Your task to perform on an android device: turn off notifications settings in the gmail app Image 0: 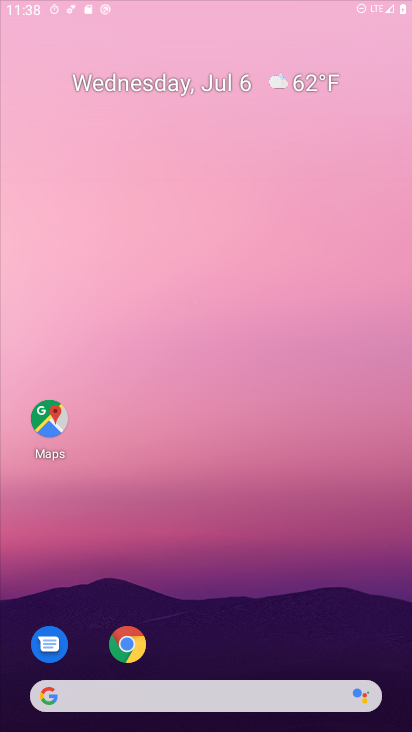
Step 0: press home button
Your task to perform on an android device: turn off notifications settings in the gmail app Image 1: 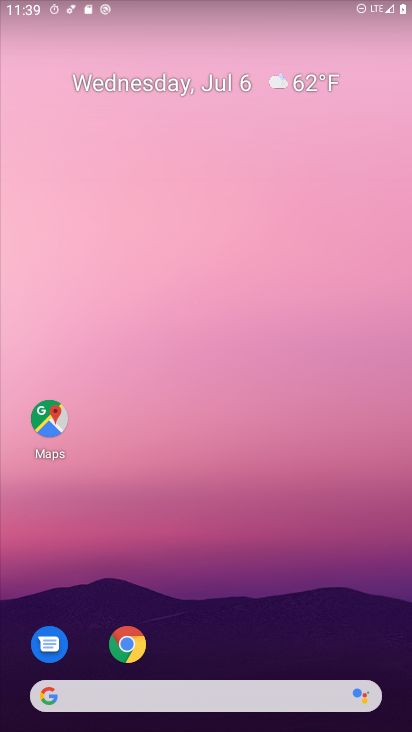
Step 1: drag from (236, 657) to (225, 40)
Your task to perform on an android device: turn off notifications settings in the gmail app Image 2: 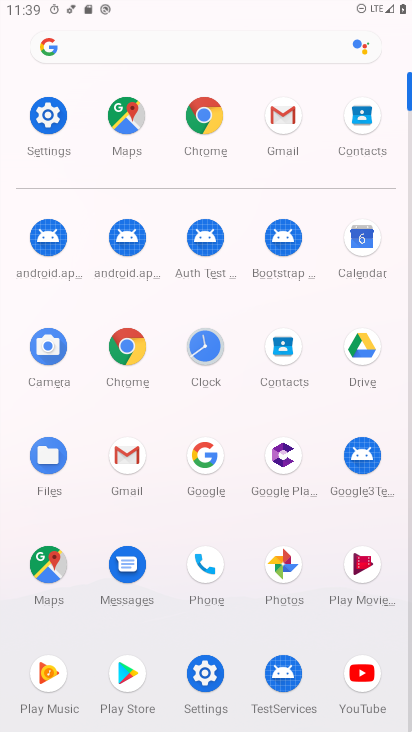
Step 2: click (286, 119)
Your task to perform on an android device: turn off notifications settings in the gmail app Image 3: 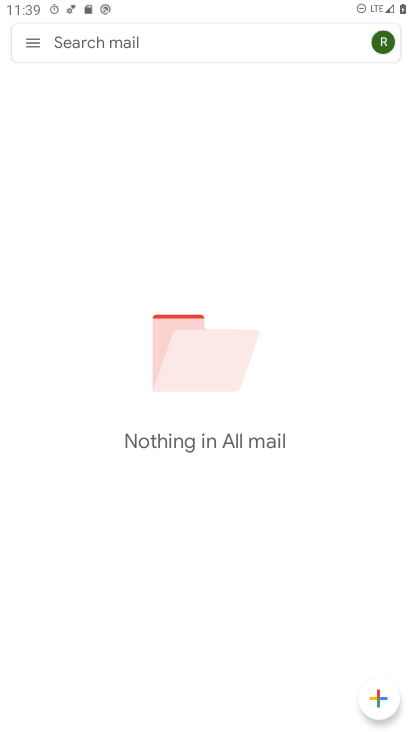
Step 3: click (34, 47)
Your task to perform on an android device: turn off notifications settings in the gmail app Image 4: 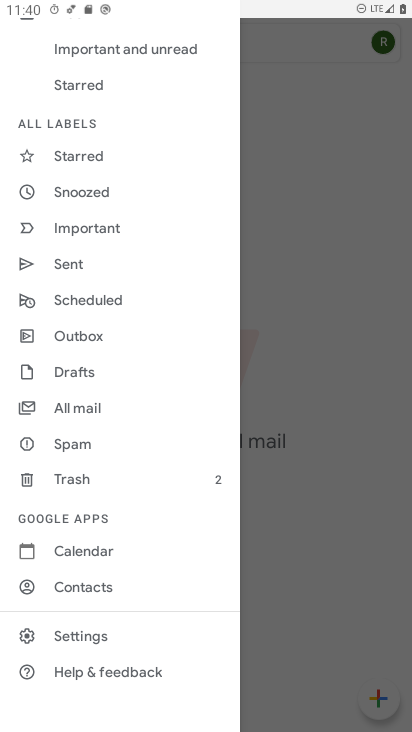
Step 4: click (81, 633)
Your task to perform on an android device: turn off notifications settings in the gmail app Image 5: 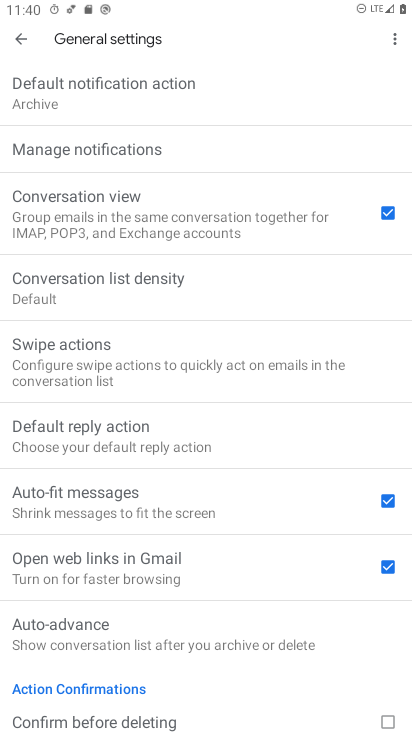
Step 5: click (103, 157)
Your task to perform on an android device: turn off notifications settings in the gmail app Image 6: 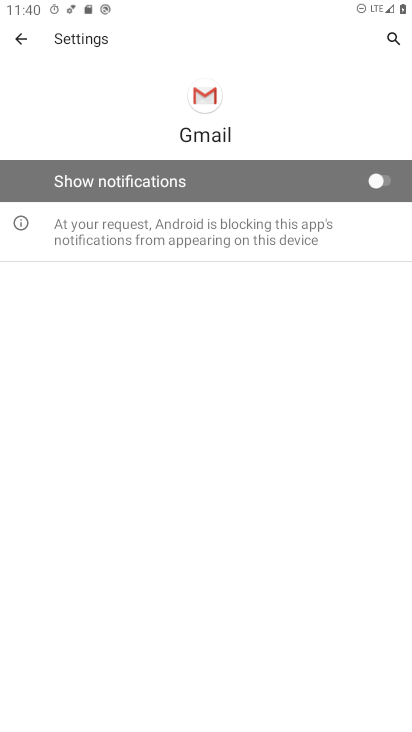
Step 6: task complete